Your task to perform on an android device: stop showing notifications on the lock screen Image 0: 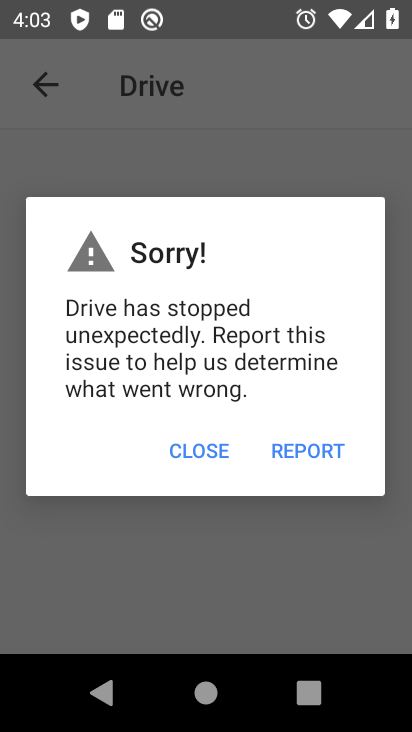
Step 0: press home button
Your task to perform on an android device: stop showing notifications on the lock screen Image 1: 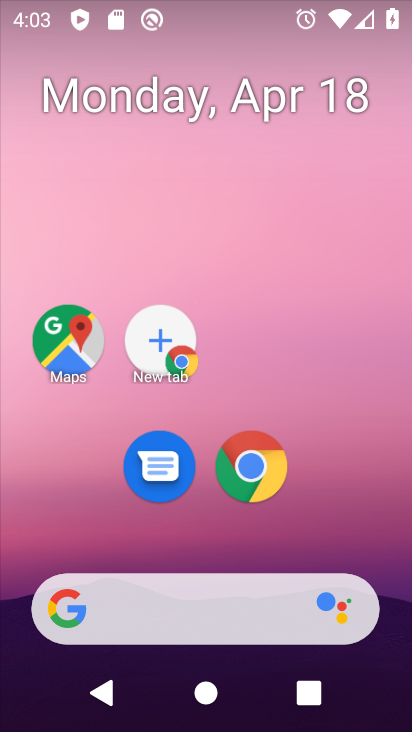
Step 1: drag from (332, 495) to (262, 42)
Your task to perform on an android device: stop showing notifications on the lock screen Image 2: 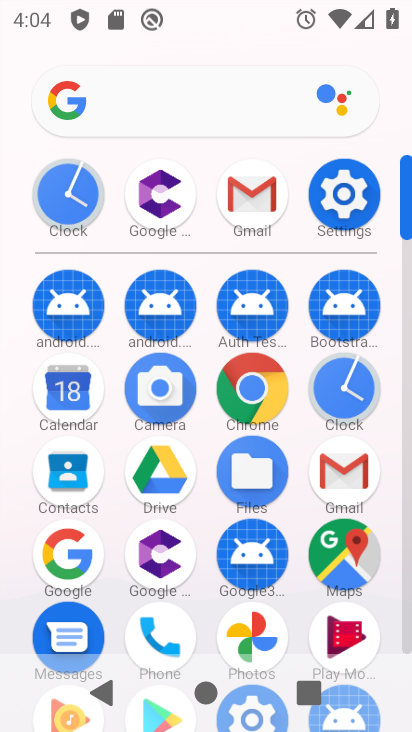
Step 2: drag from (22, 465) to (24, 103)
Your task to perform on an android device: stop showing notifications on the lock screen Image 3: 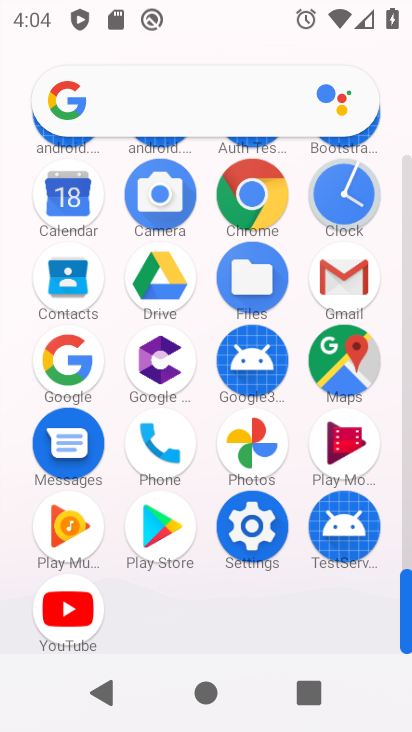
Step 3: click (253, 524)
Your task to perform on an android device: stop showing notifications on the lock screen Image 4: 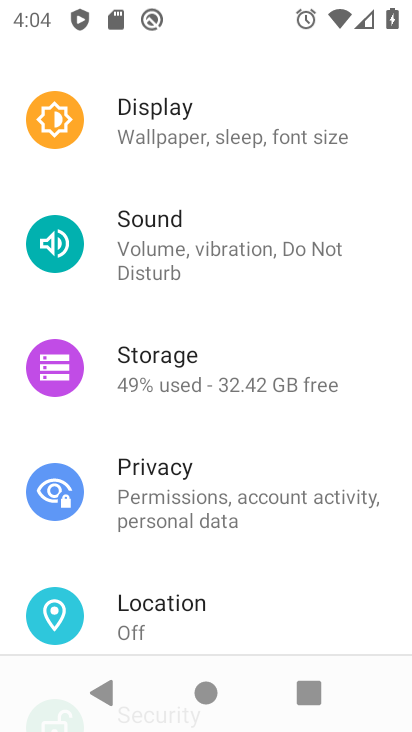
Step 4: drag from (241, 519) to (233, 114)
Your task to perform on an android device: stop showing notifications on the lock screen Image 5: 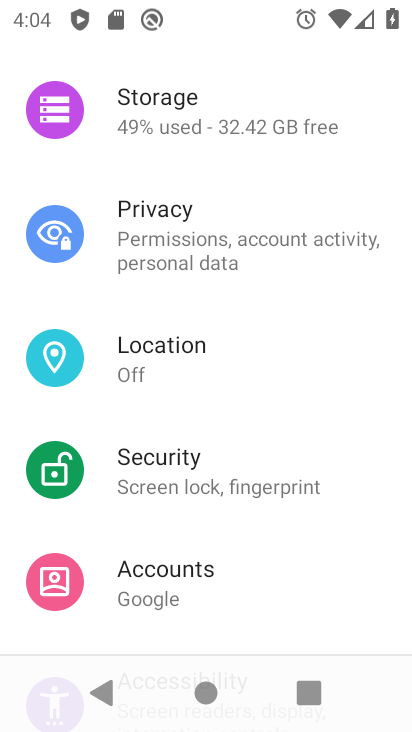
Step 5: drag from (242, 488) to (222, 114)
Your task to perform on an android device: stop showing notifications on the lock screen Image 6: 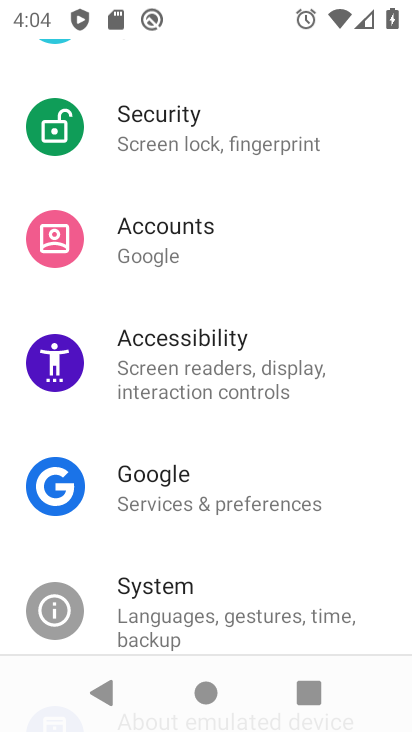
Step 6: drag from (246, 486) to (248, 117)
Your task to perform on an android device: stop showing notifications on the lock screen Image 7: 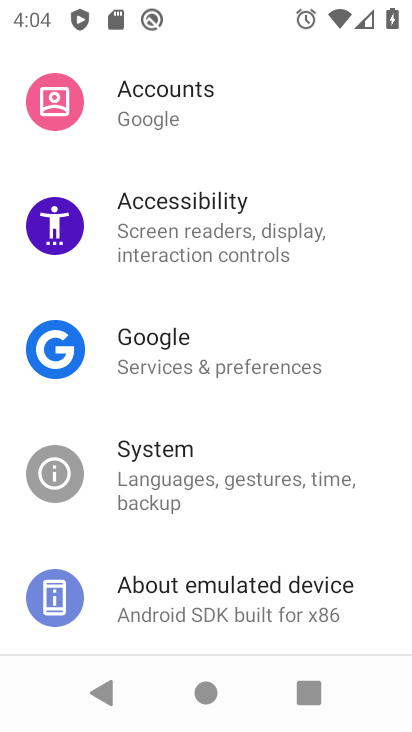
Step 7: drag from (254, 159) to (241, 522)
Your task to perform on an android device: stop showing notifications on the lock screen Image 8: 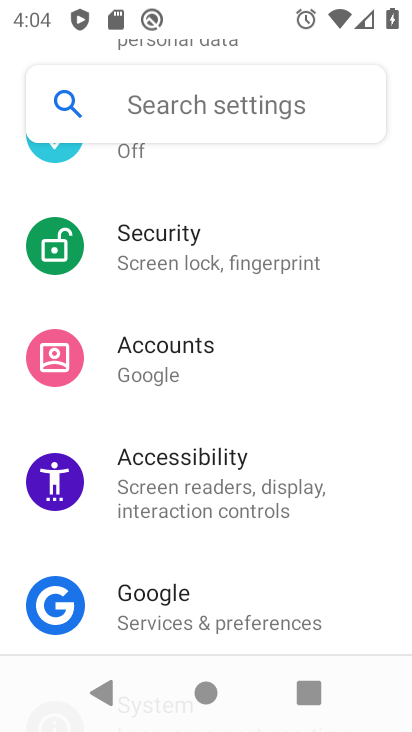
Step 8: drag from (232, 310) to (235, 595)
Your task to perform on an android device: stop showing notifications on the lock screen Image 9: 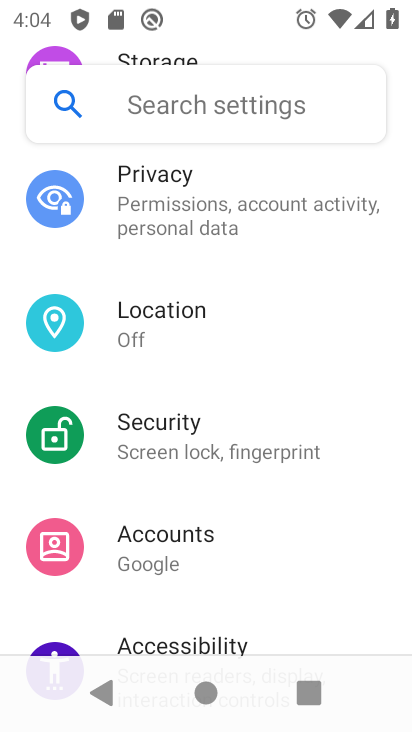
Step 9: drag from (225, 337) to (228, 580)
Your task to perform on an android device: stop showing notifications on the lock screen Image 10: 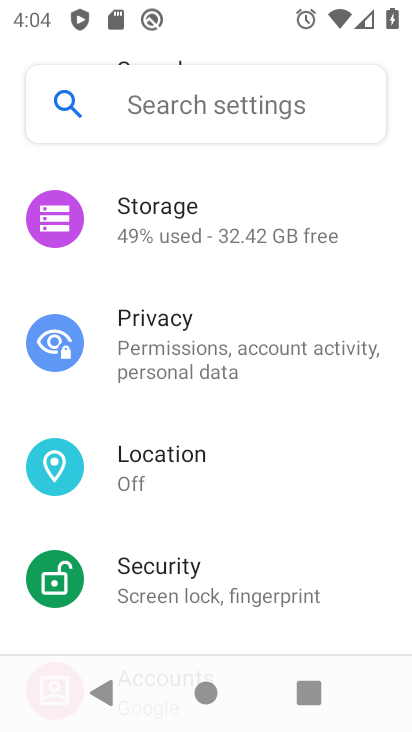
Step 10: drag from (225, 217) to (232, 557)
Your task to perform on an android device: stop showing notifications on the lock screen Image 11: 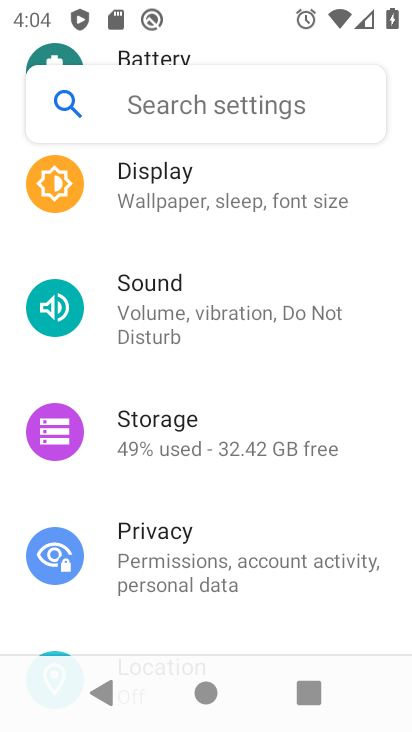
Step 11: drag from (226, 305) to (228, 600)
Your task to perform on an android device: stop showing notifications on the lock screen Image 12: 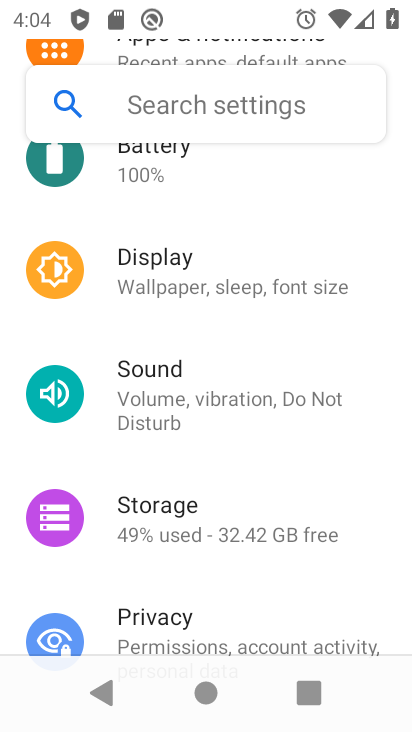
Step 12: drag from (211, 231) to (211, 579)
Your task to perform on an android device: stop showing notifications on the lock screen Image 13: 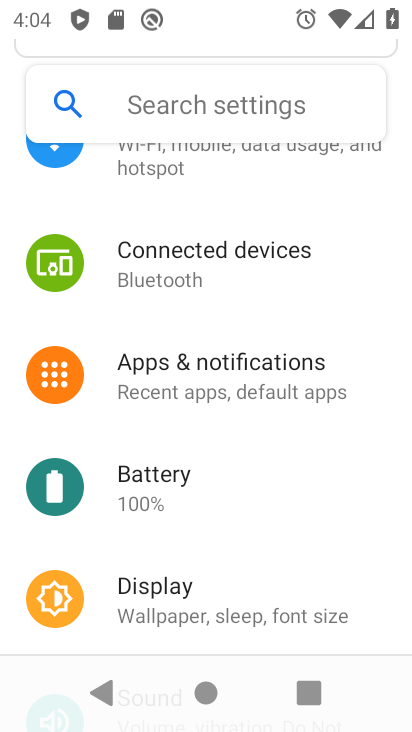
Step 13: click (210, 388)
Your task to perform on an android device: stop showing notifications on the lock screen Image 14: 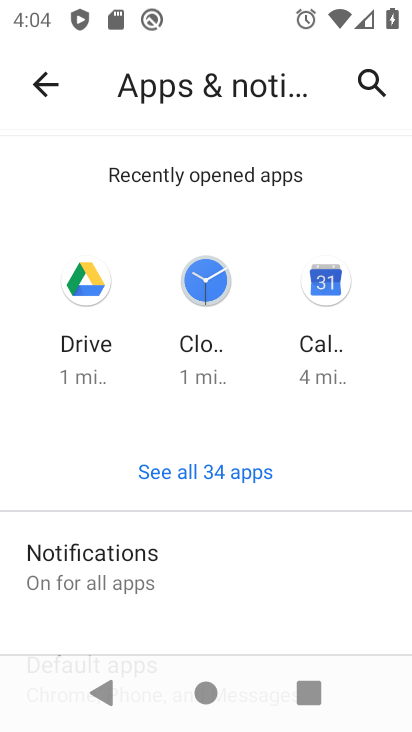
Step 14: drag from (235, 582) to (240, 214)
Your task to perform on an android device: stop showing notifications on the lock screen Image 15: 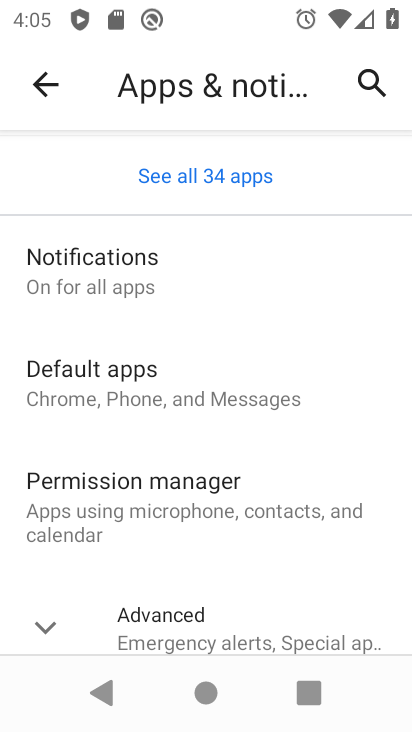
Step 15: drag from (239, 534) to (278, 241)
Your task to perform on an android device: stop showing notifications on the lock screen Image 16: 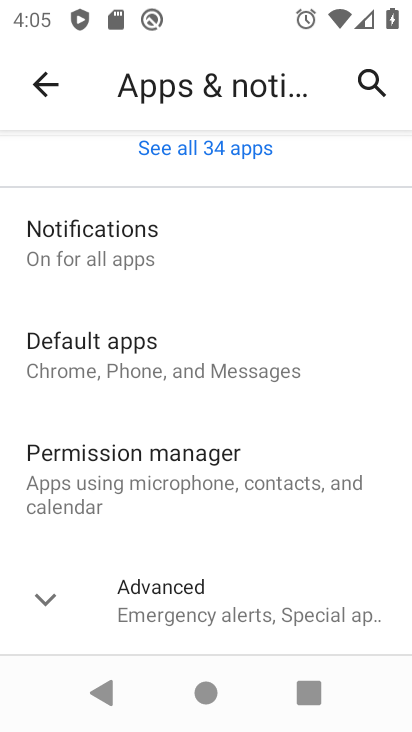
Step 16: click (153, 590)
Your task to perform on an android device: stop showing notifications on the lock screen Image 17: 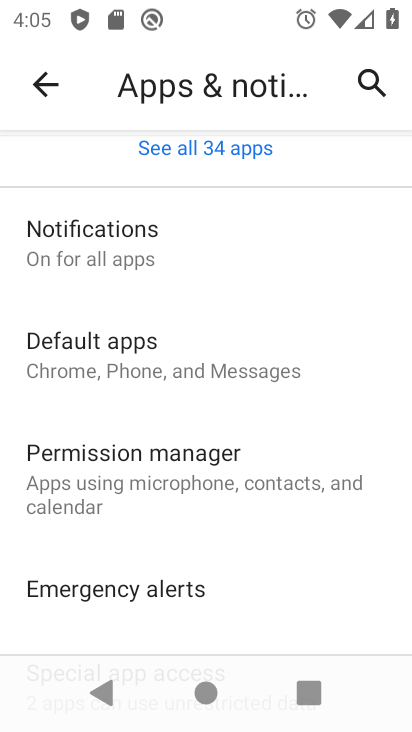
Step 17: drag from (283, 533) to (281, 233)
Your task to perform on an android device: stop showing notifications on the lock screen Image 18: 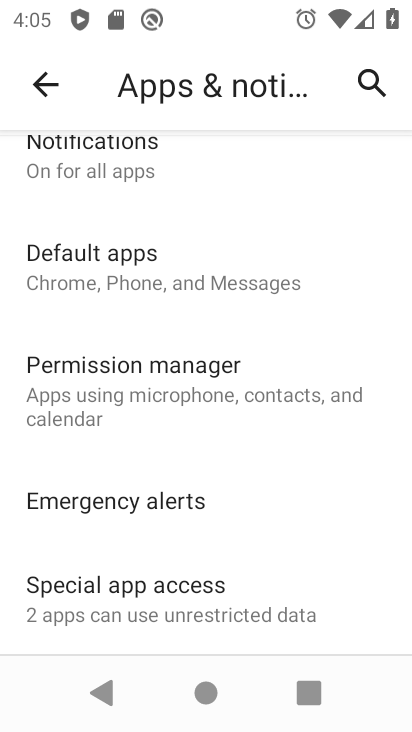
Step 18: click (152, 171)
Your task to perform on an android device: stop showing notifications on the lock screen Image 19: 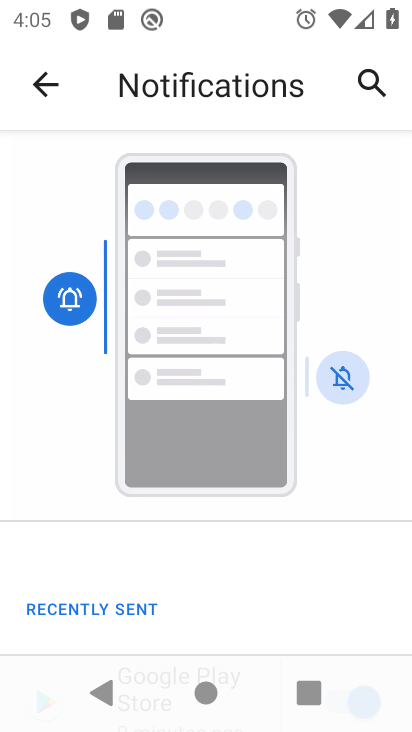
Step 19: drag from (221, 548) to (203, 61)
Your task to perform on an android device: stop showing notifications on the lock screen Image 20: 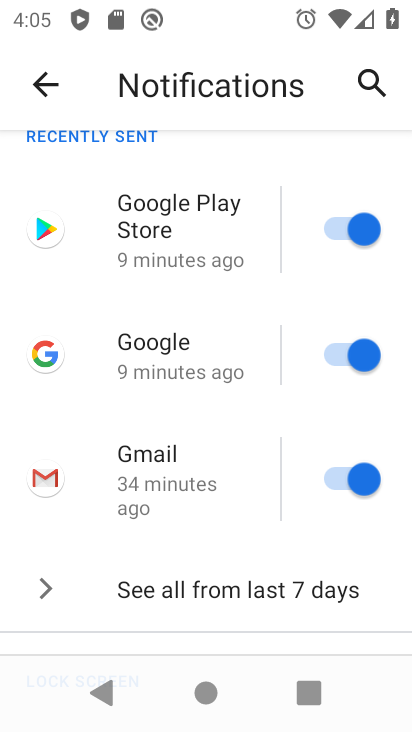
Step 20: drag from (212, 526) to (221, 196)
Your task to perform on an android device: stop showing notifications on the lock screen Image 21: 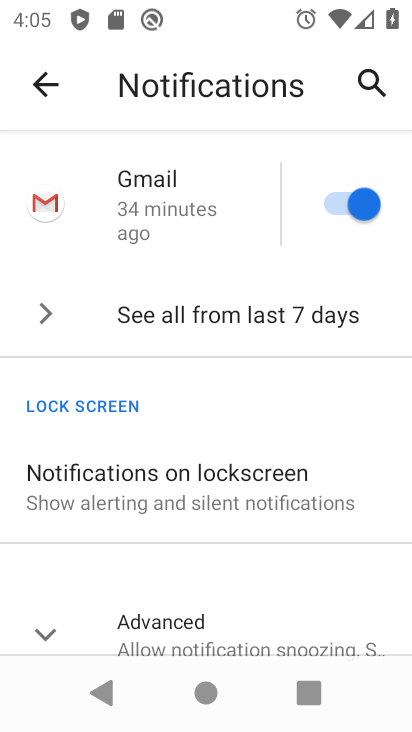
Step 21: drag from (202, 489) to (218, 182)
Your task to perform on an android device: stop showing notifications on the lock screen Image 22: 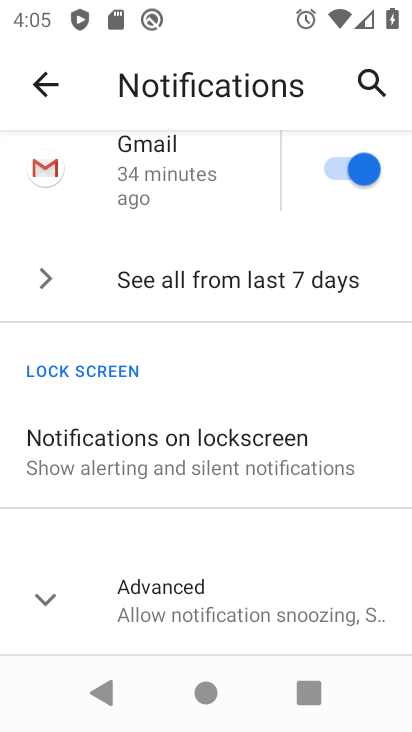
Step 22: click (219, 605)
Your task to perform on an android device: stop showing notifications on the lock screen Image 23: 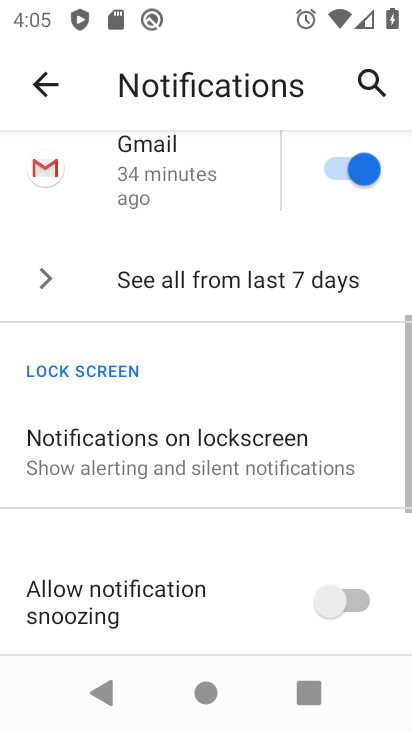
Step 23: click (199, 466)
Your task to perform on an android device: stop showing notifications on the lock screen Image 24: 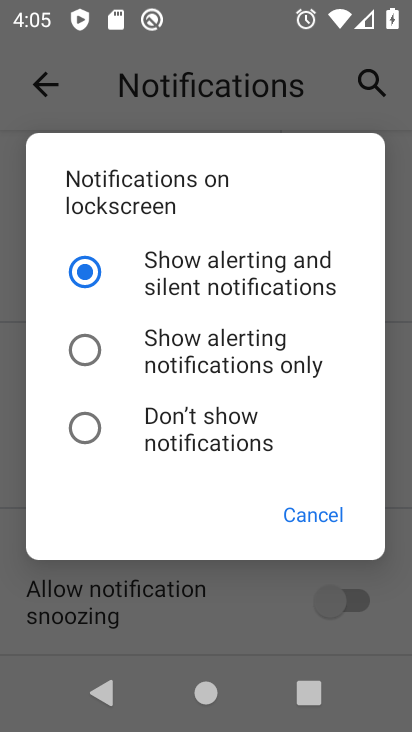
Step 24: click (192, 429)
Your task to perform on an android device: stop showing notifications on the lock screen Image 25: 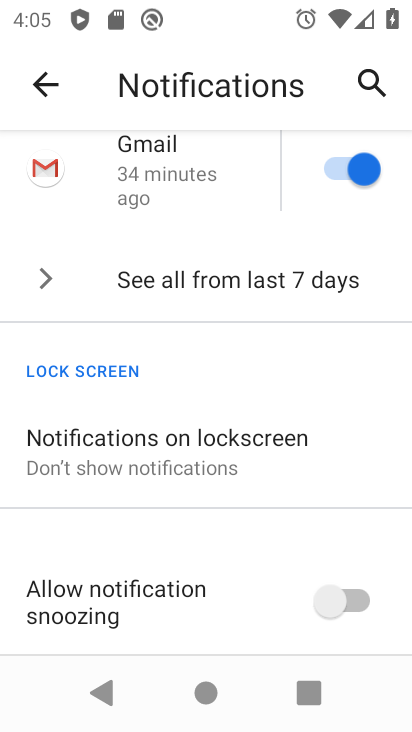
Step 25: task complete